Your task to perform on an android device: toggle location history Image 0: 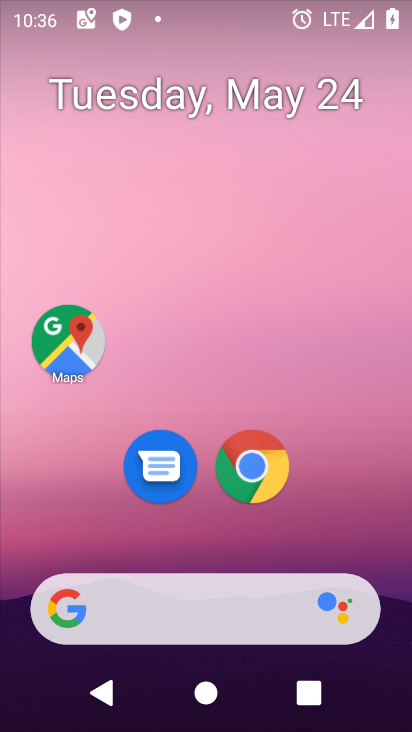
Step 0: drag from (382, 573) to (412, 261)
Your task to perform on an android device: toggle location history Image 1: 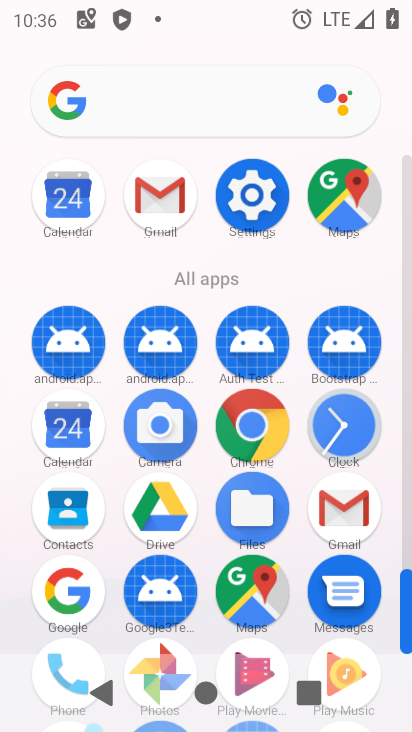
Step 1: click (255, 204)
Your task to perform on an android device: toggle location history Image 2: 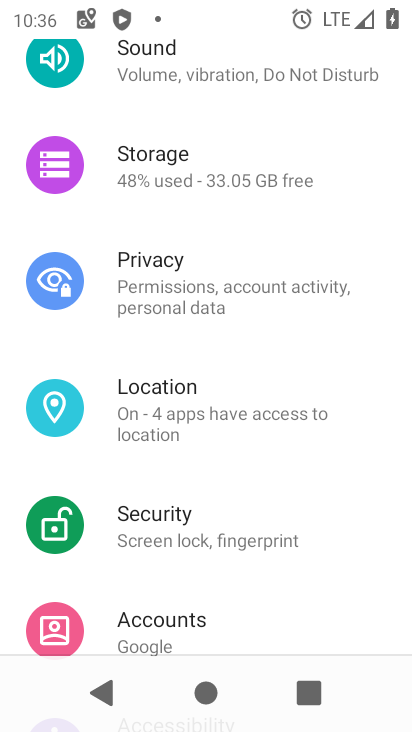
Step 2: drag from (358, 212) to (366, 321)
Your task to perform on an android device: toggle location history Image 3: 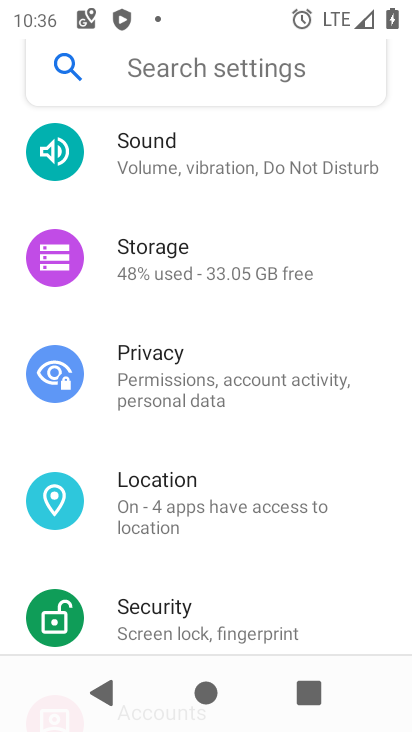
Step 3: drag from (362, 214) to (355, 336)
Your task to perform on an android device: toggle location history Image 4: 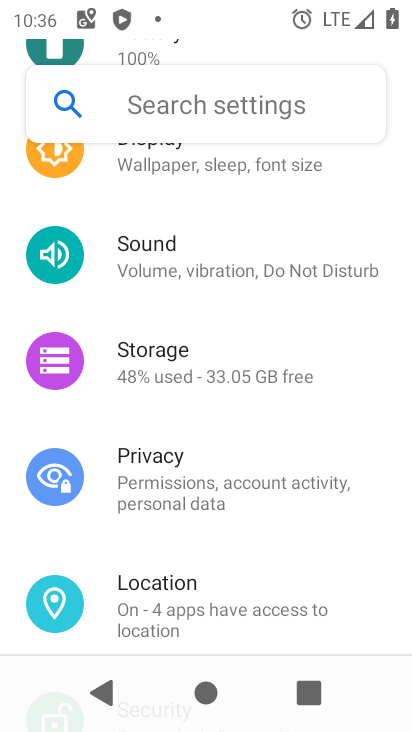
Step 4: drag from (372, 185) to (367, 347)
Your task to perform on an android device: toggle location history Image 5: 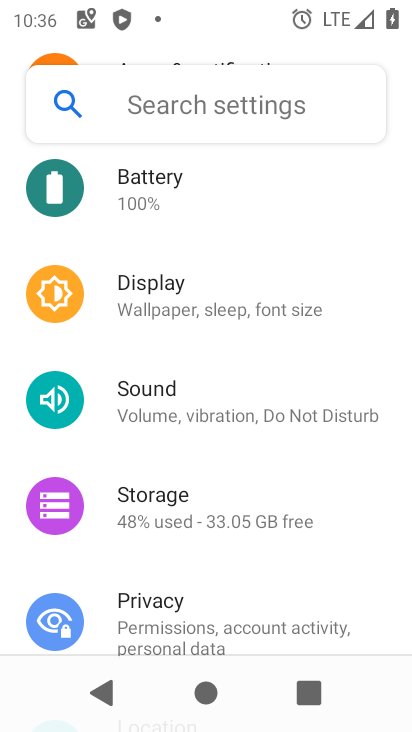
Step 5: drag from (377, 175) to (359, 289)
Your task to perform on an android device: toggle location history Image 6: 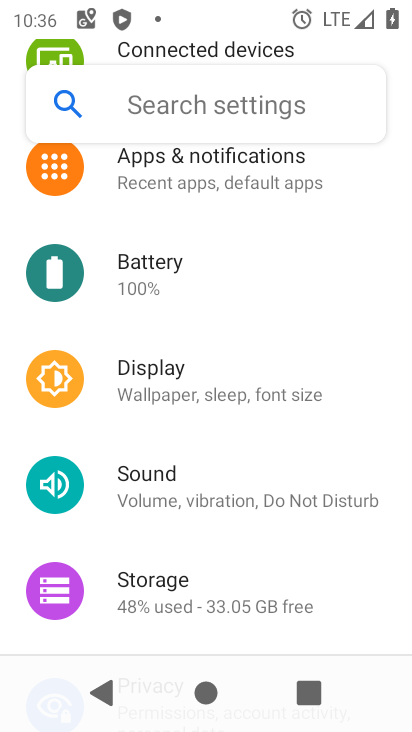
Step 6: drag from (372, 198) to (340, 311)
Your task to perform on an android device: toggle location history Image 7: 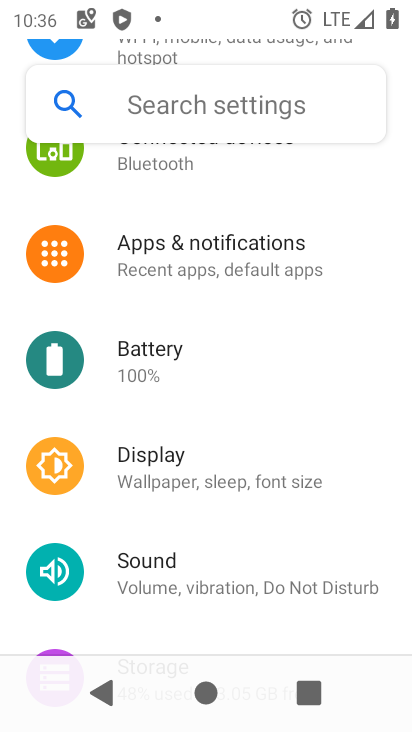
Step 7: drag from (355, 189) to (339, 316)
Your task to perform on an android device: toggle location history Image 8: 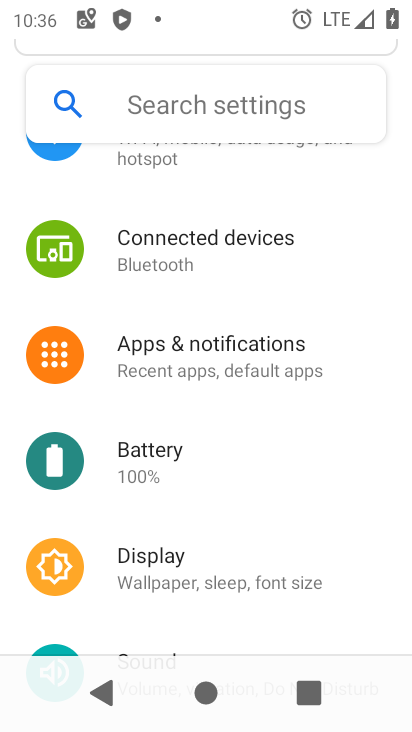
Step 8: drag from (371, 175) to (362, 289)
Your task to perform on an android device: toggle location history Image 9: 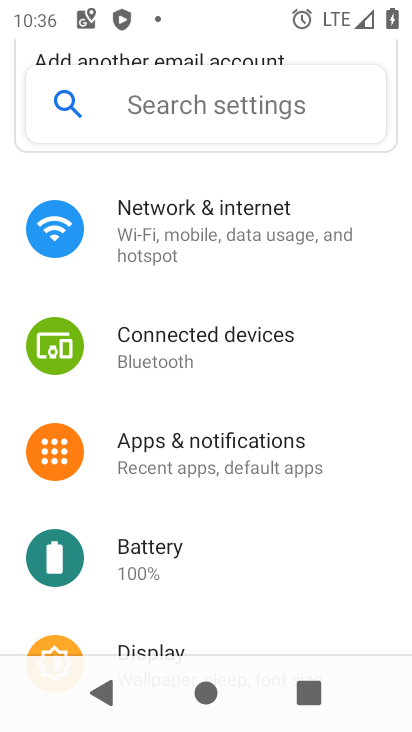
Step 9: drag from (370, 178) to (367, 330)
Your task to perform on an android device: toggle location history Image 10: 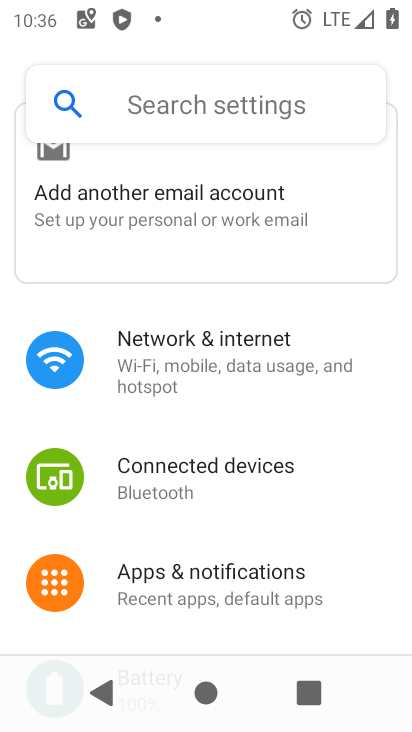
Step 10: drag from (390, 513) to (382, 395)
Your task to perform on an android device: toggle location history Image 11: 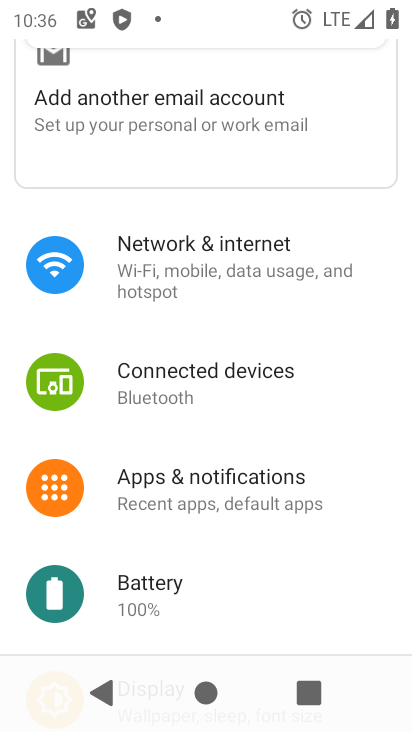
Step 11: drag from (360, 551) to (363, 433)
Your task to perform on an android device: toggle location history Image 12: 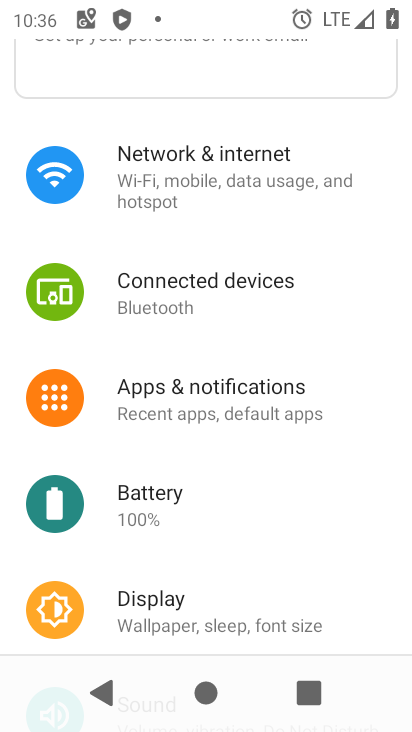
Step 12: drag from (376, 560) to (361, 466)
Your task to perform on an android device: toggle location history Image 13: 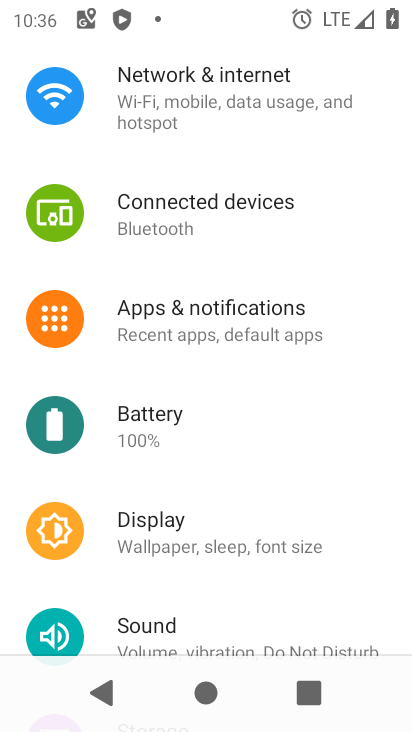
Step 13: drag from (350, 549) to (366, 468)
Your task to perform on an android device: toggle location history Image 14: 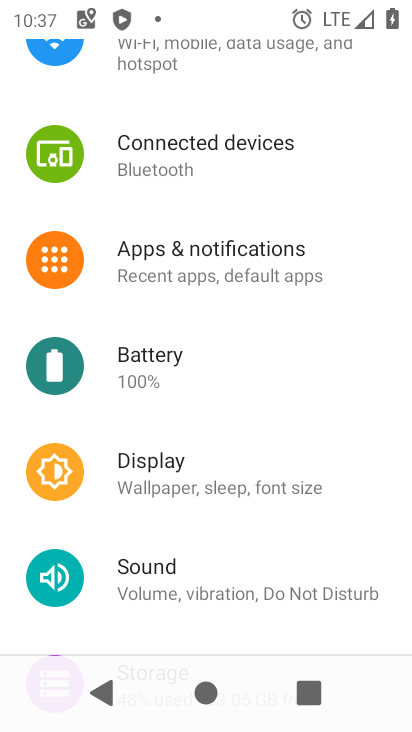
Step 14: drag from (354, 549) to (351, 450)
Your task to perform on an android device: toggle location history Image 15: 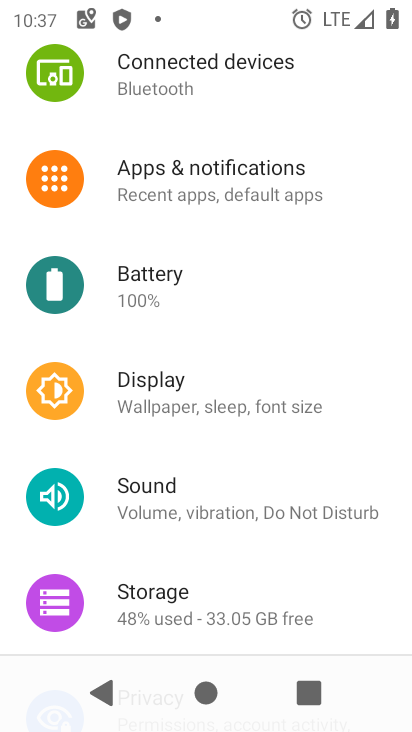
Step 15: drag from (344, 565) to (377, 462)
Your task to perform on an android device: toggle location history Image 16: 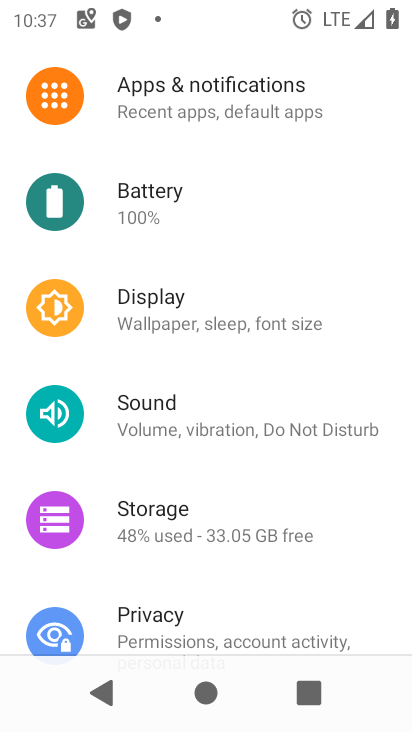
Step 16: drag from (343, 559) to (365, 455)
Your task to perform on an android device: toggle location history Image 17: 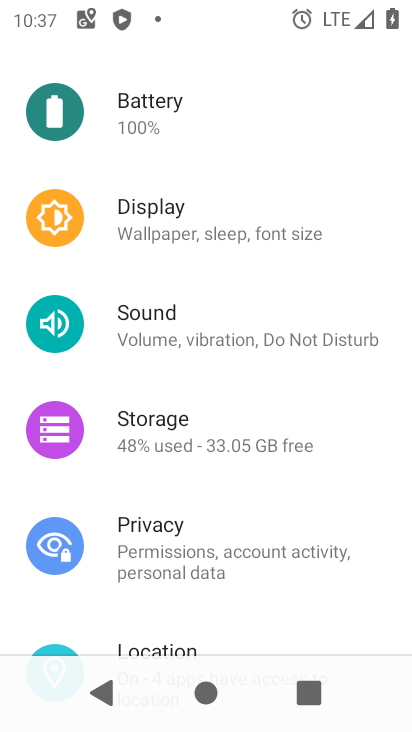
Step 17: drag from (334, 573) to (341, 451)
Your task to perform on an android device: toggle location history Image 18: 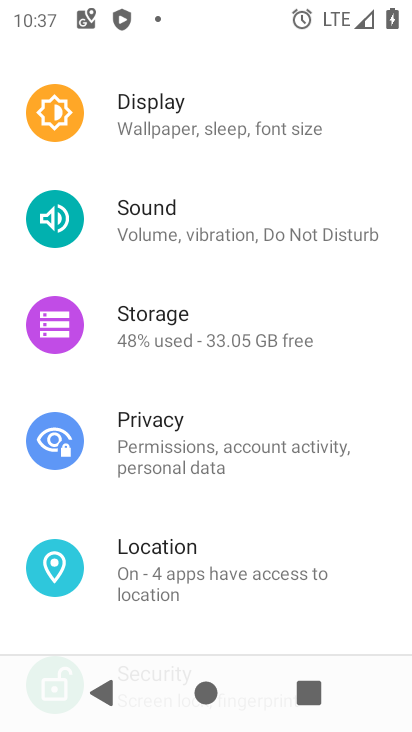
Step 18: click (313, 580)
Your task to perform on an android device: toggle location history Image 19: 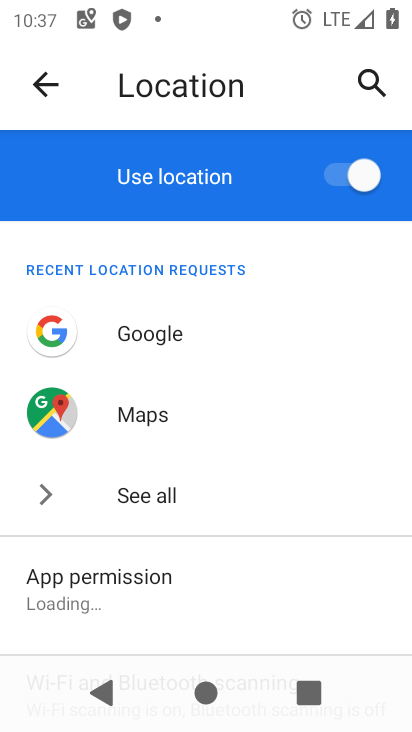
Step 19: drag from (313, 580) to (313, 481)
Your task to perform on an android device: toggle location history Image 20: 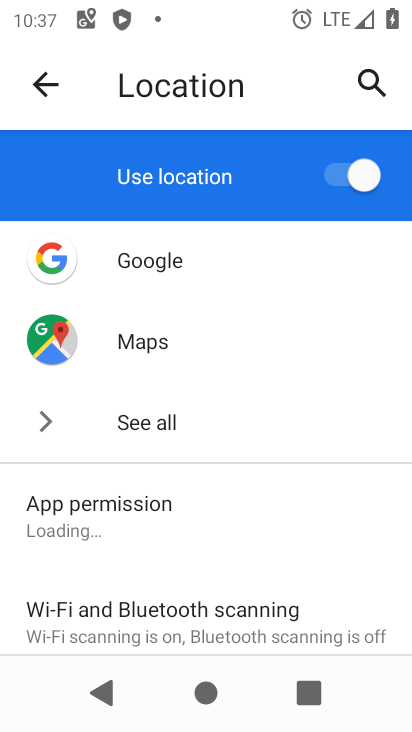
Step 20: drag from (310, 547) to (313, 448)
Your task to perform on an android device: toggle location history Image 21: 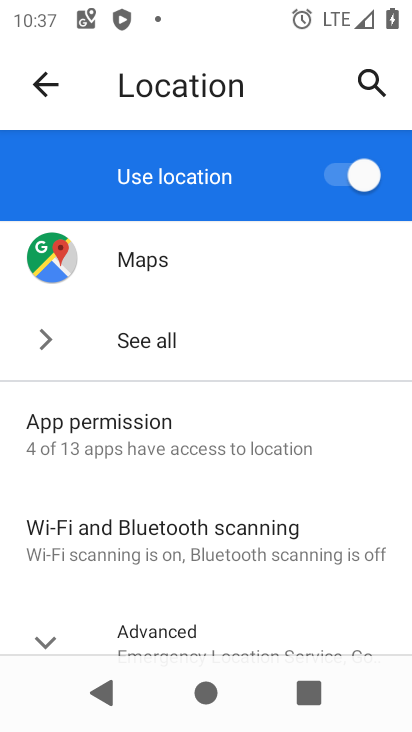
Step 21: drag from (295, 571) to (337, 346)
Your task to perform on an android device: toggle location history Image 22: 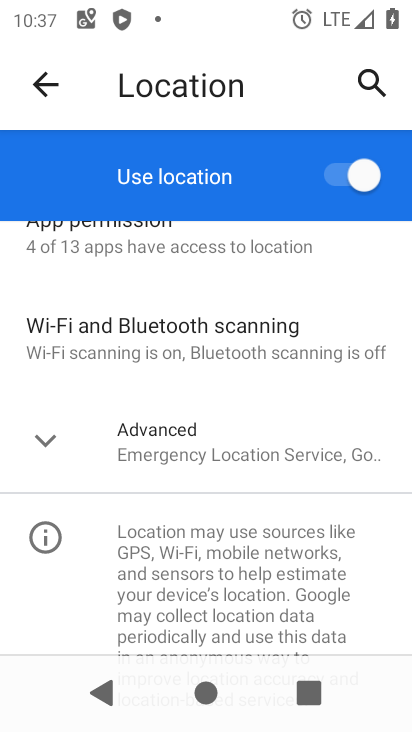
Step 22: click (294, 456)
Your task to perform on an android device: toggle location history Image 23: 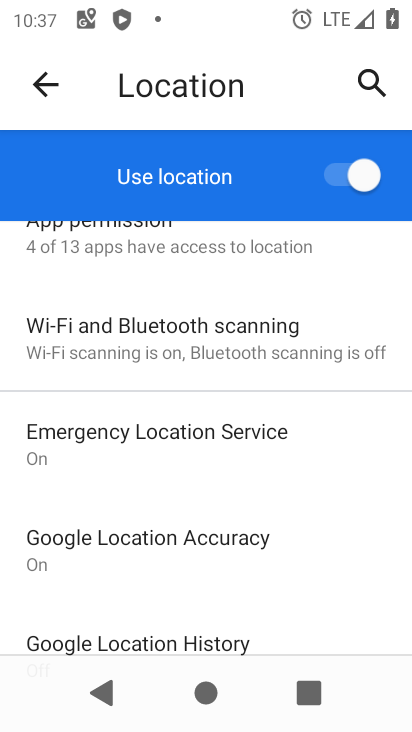
Step 23: drag from (312, 559) to (313, 417)
Your task to perform on an android device: toggle location history Image 24: 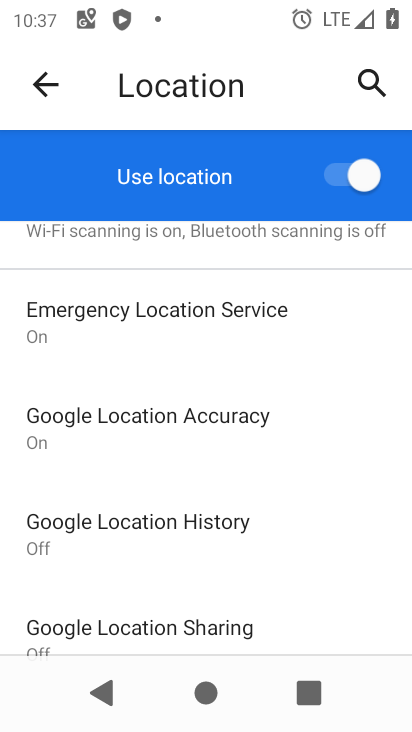
Step 24: click (166, 535)
Your task to perform on an android device: toggle location history Image 25: 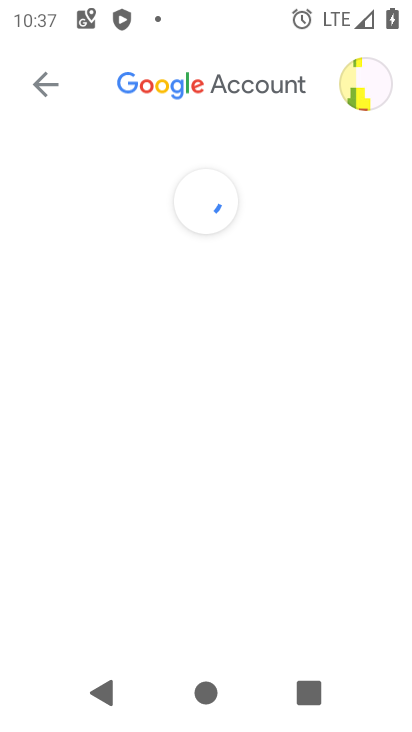
Step 25: drag from (316, 528) to (335, 386)
Your task to perform on an android device: toggle location history Image 26: 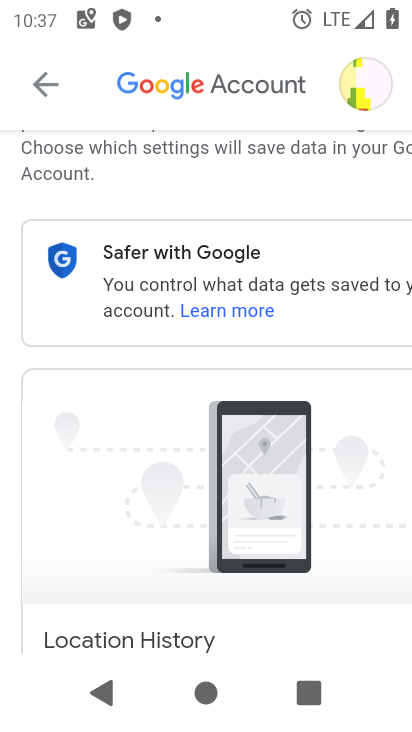
Step 26: drag from (323, 547) to (328, 421)
Your task to perform on an android device: toggle location history Image 27: 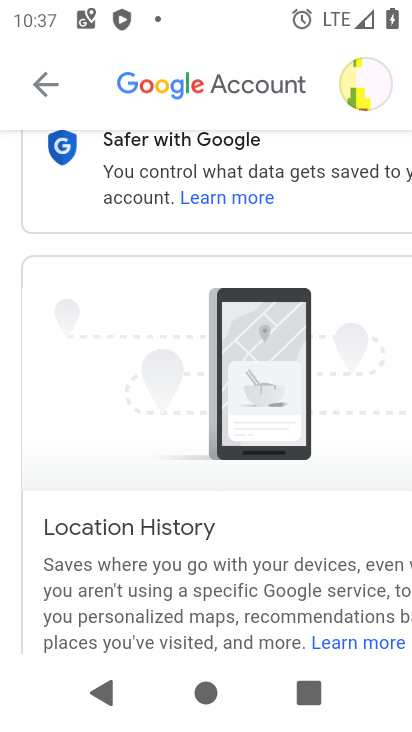
Step 27: drag from (285, 428) to (287, 371)
Your task to perform on an android device: toggle location history Image 28: 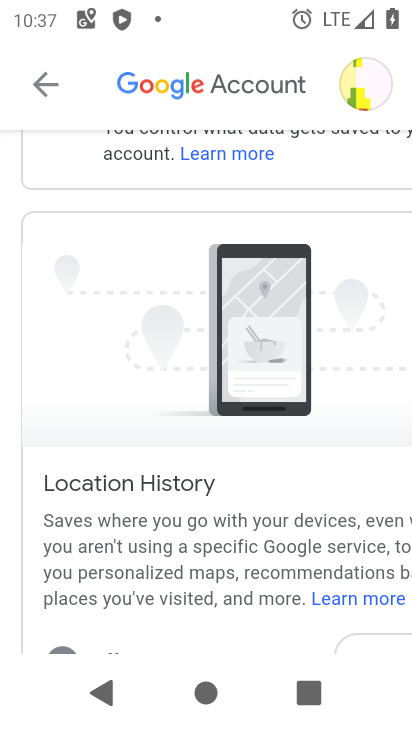
Step 28: drag from (271, 562) to (275, 416)
Your task to perform on an android device: toggle location history Image 29: 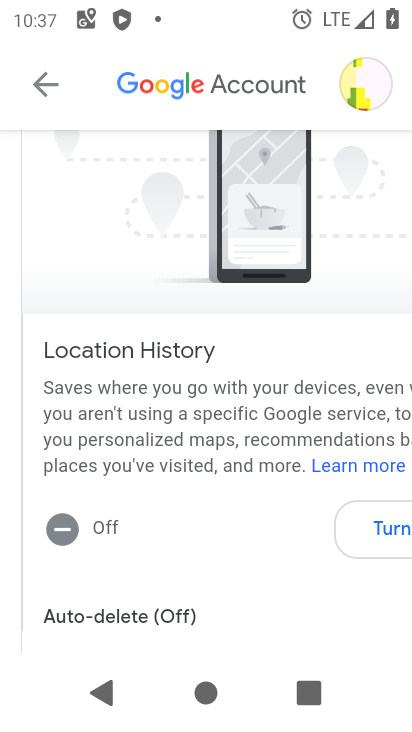
Step 29: click (402, 516)
Your task to perform on an android device: toggle location history Image 30: 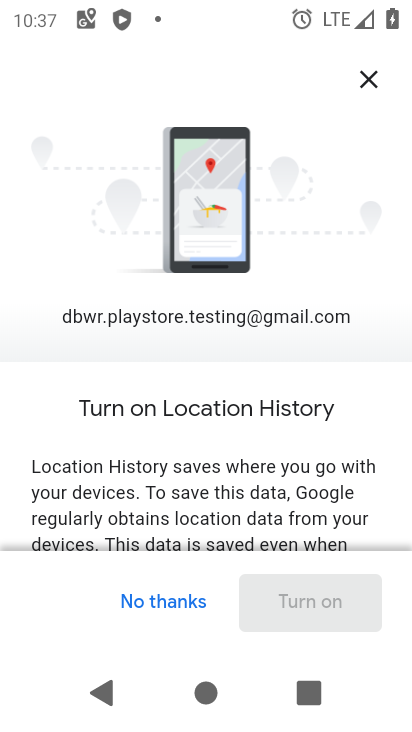
Step 30: drag from (244, 504) to (243, 392)
Your task to perform on an android device: toggle location history Image 31: 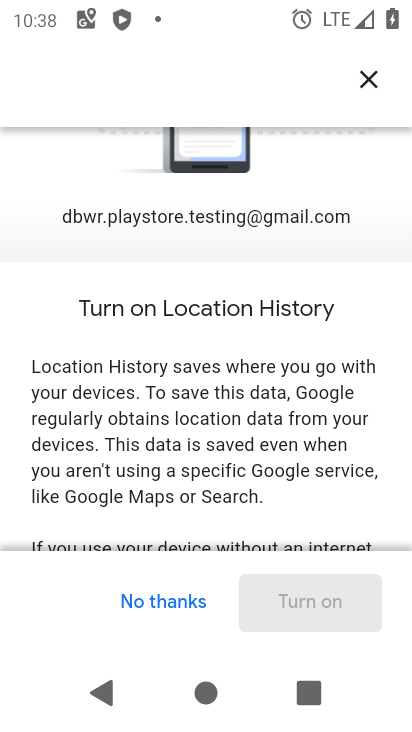
Step 31: drag from (290, 495) to (307, 389)
Your task to perform on an android device: toggle location history Image 32: 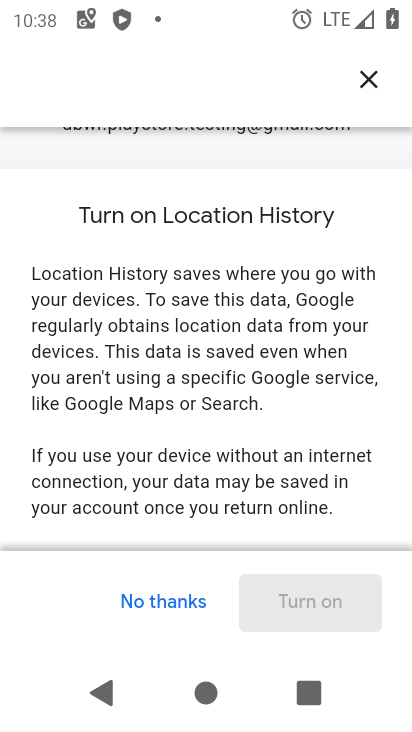
Step 32: drag from (347, 504) to (341, 384)
Your task to perform on an android device: toggle location history Image 33: 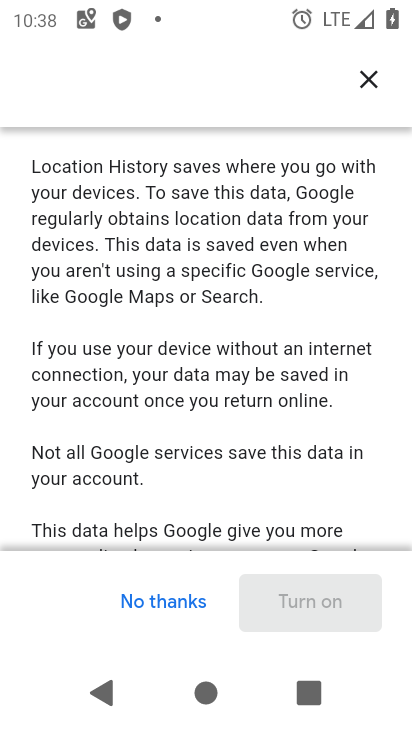
Step 33: drag from (379, 501) to (377, 372)
Your task to perform on an android device: toggle location history Image 34: 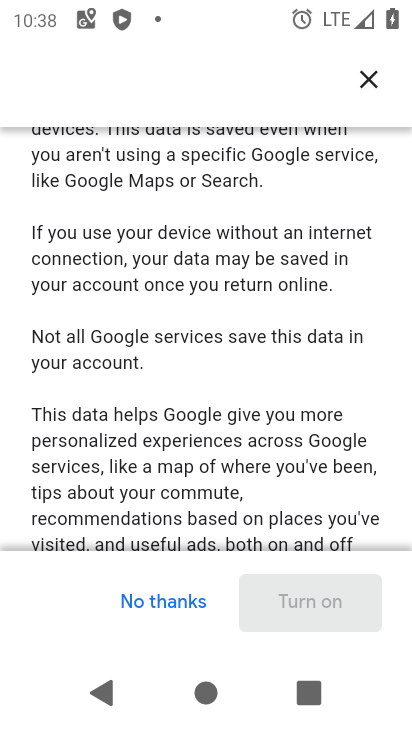
Step 34: drag from (388, 473) to (391, 336)
Your task to perform on an android device: toggle location history Image 35: 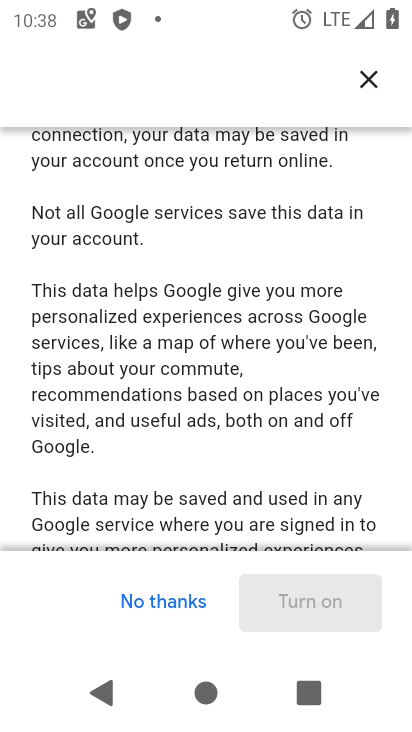
Step 35: drag from (361, 475) to (373, 357)
Your task to perform on an android device: toggle location history Image 36: 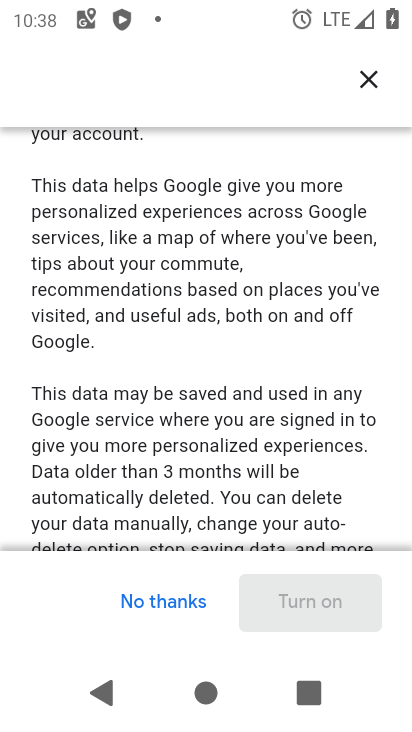
Step 36: drag from (367, 482) to (372, 374)
Your task to perform on an android device: toggle location history Image 37: 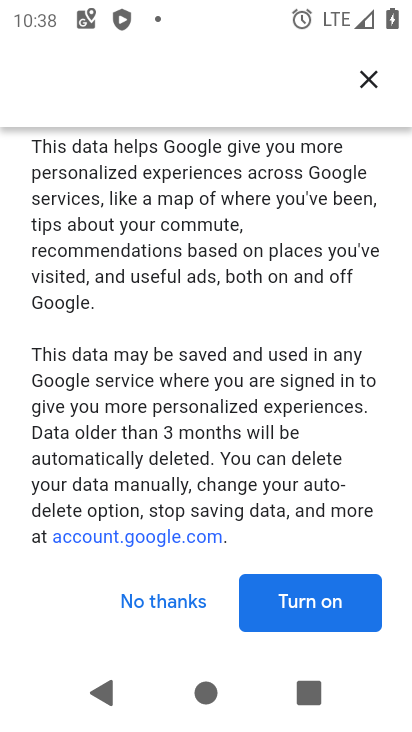
Step 37: click (317, 596)
Your task to perform on an android device: toggle location history Image 38: 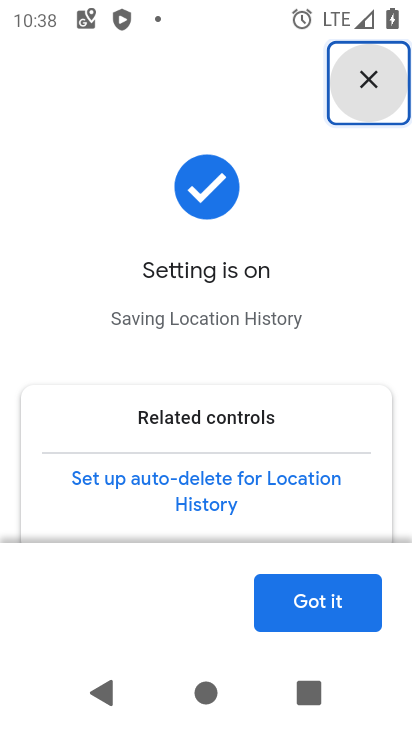
Step 38: task complete